Your task to perform on an android device: add a contact in the contacts app Image 0: 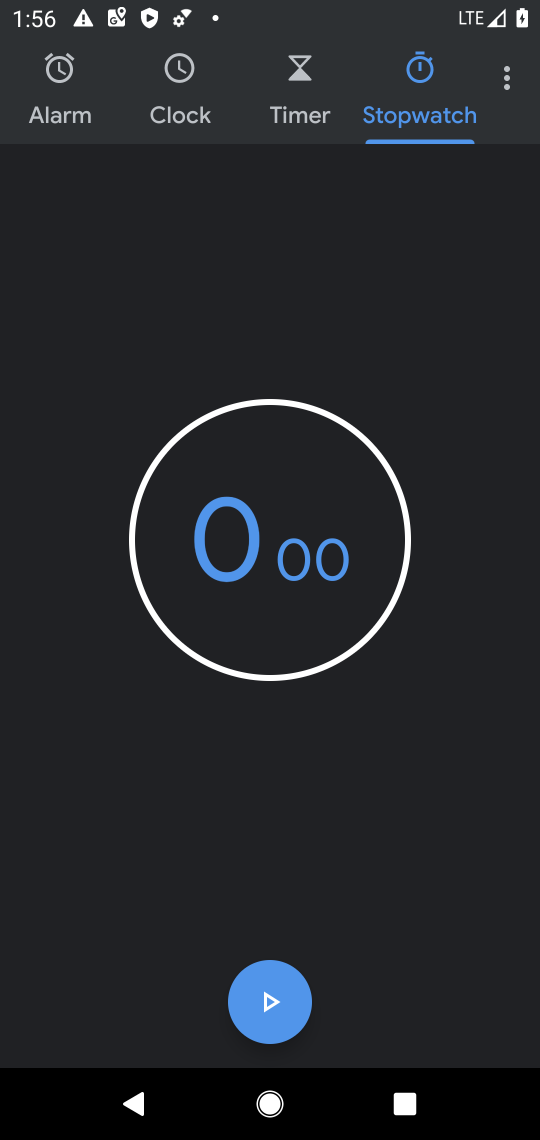
Step 0: press home button
Your task to perform on an android device: add a contact in the contacts app Image 1: 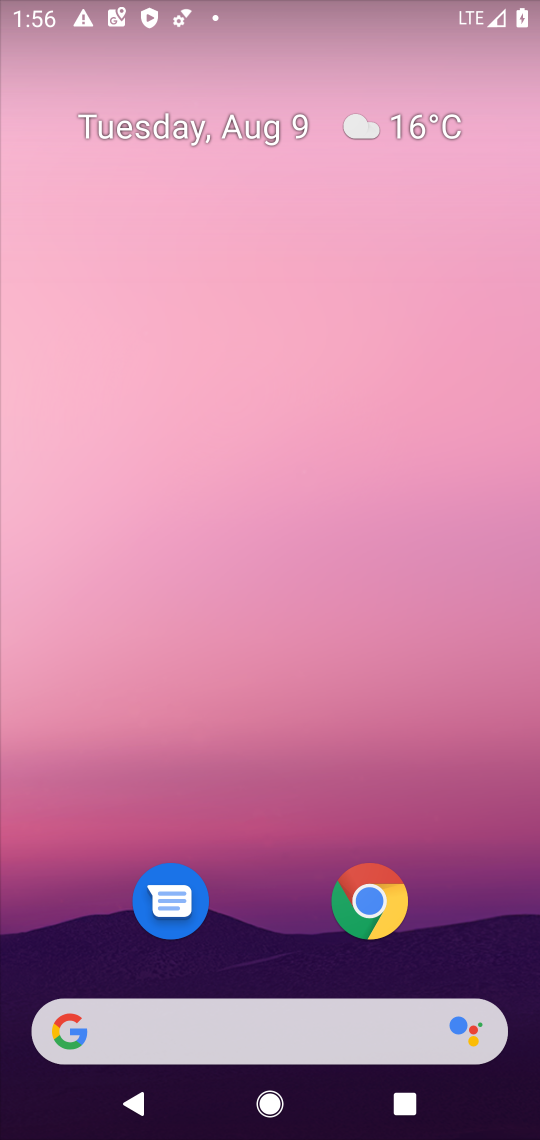
Step 1: drag from (515, 953) to (466, 144)
Your task to perform on an android device: add a contact in the contacts app Image 2: 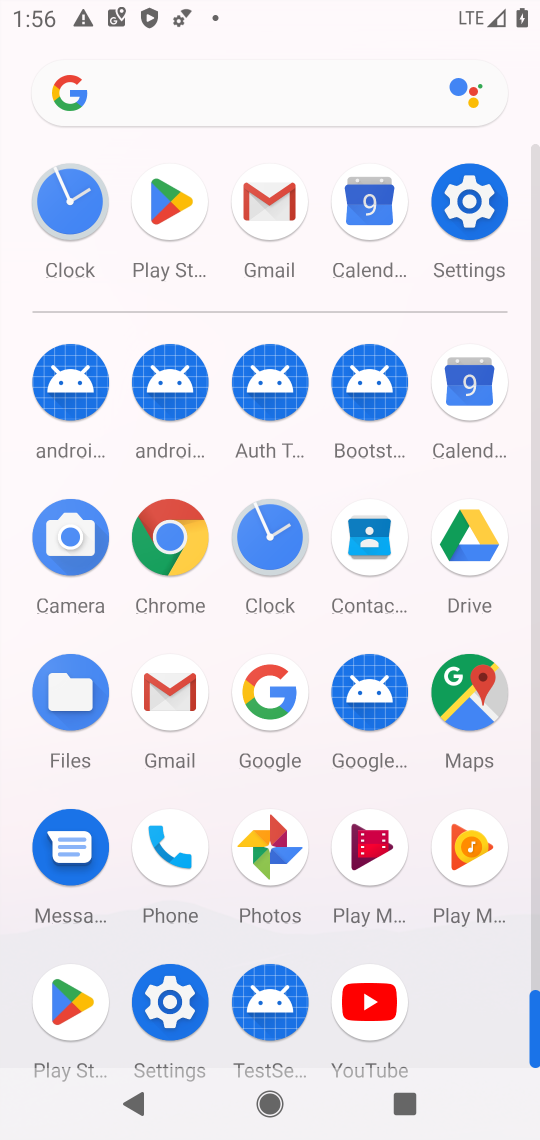
Step 2: click (360, 534)
Your task to perform on an android device: add a contact in the contacts app Image 3: 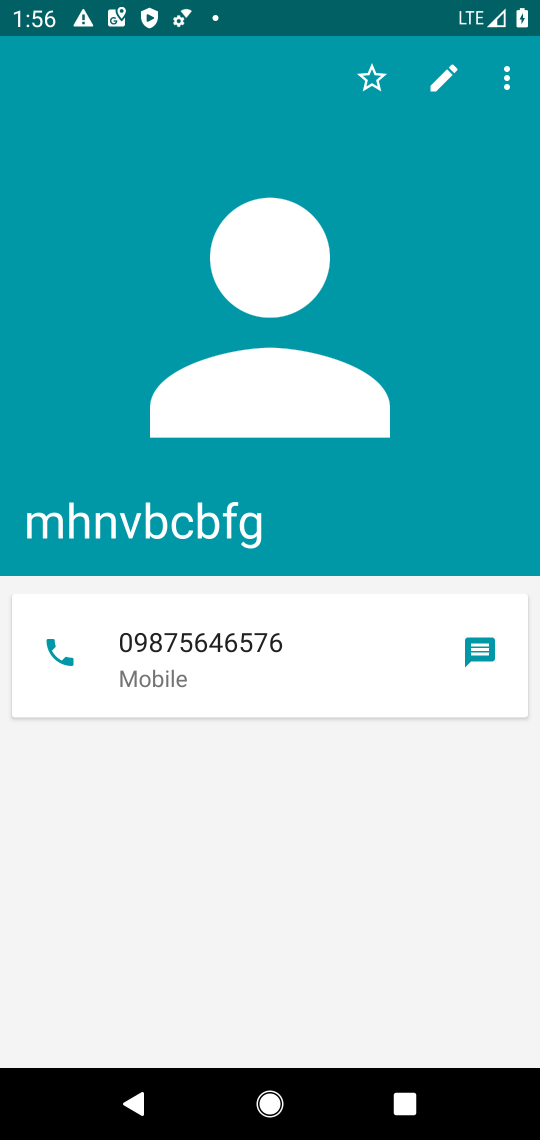
Step 3: press back button
Your task to perform on an android device: add a contact in the contacts app Image 4: 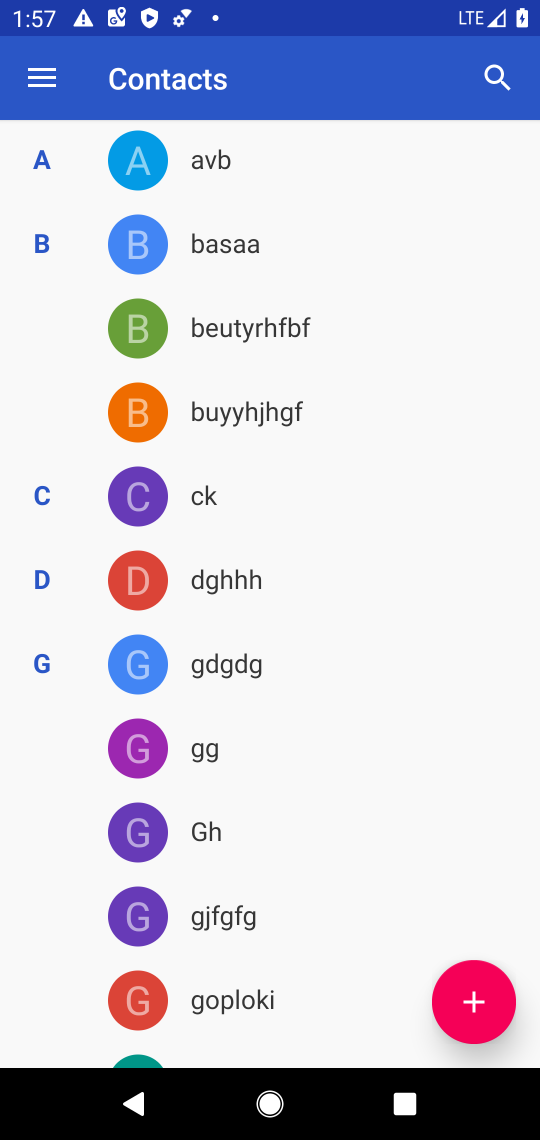
Step 4: click (484, 1008)
Your task to perform on an android device: add a contact in the contacts app Image 5: 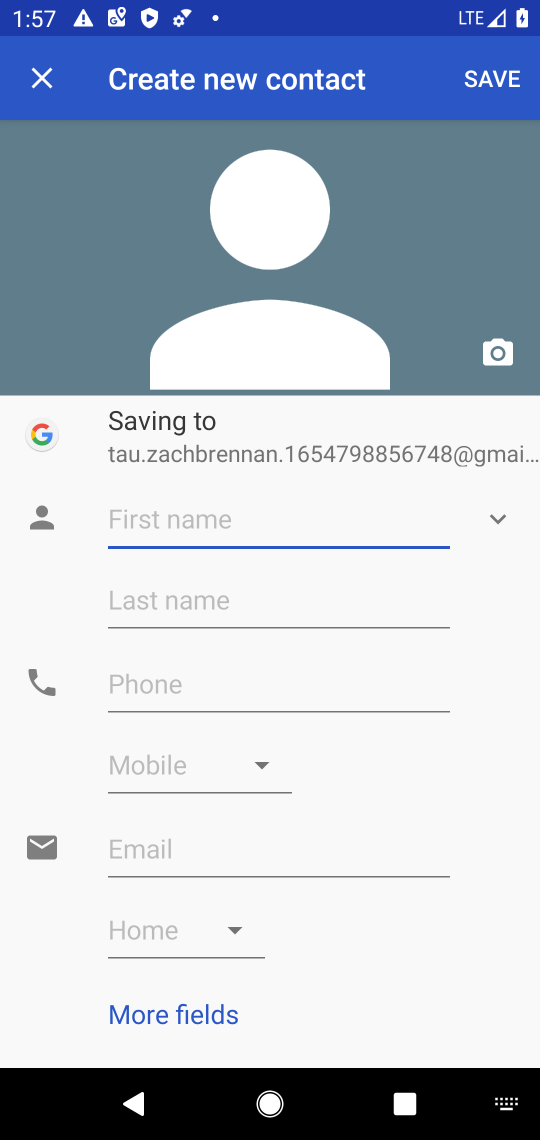
Step 5: type "mvgcdfbdfgf"
Your task to perform on an android device: add a contact in the contacts app Image 6: 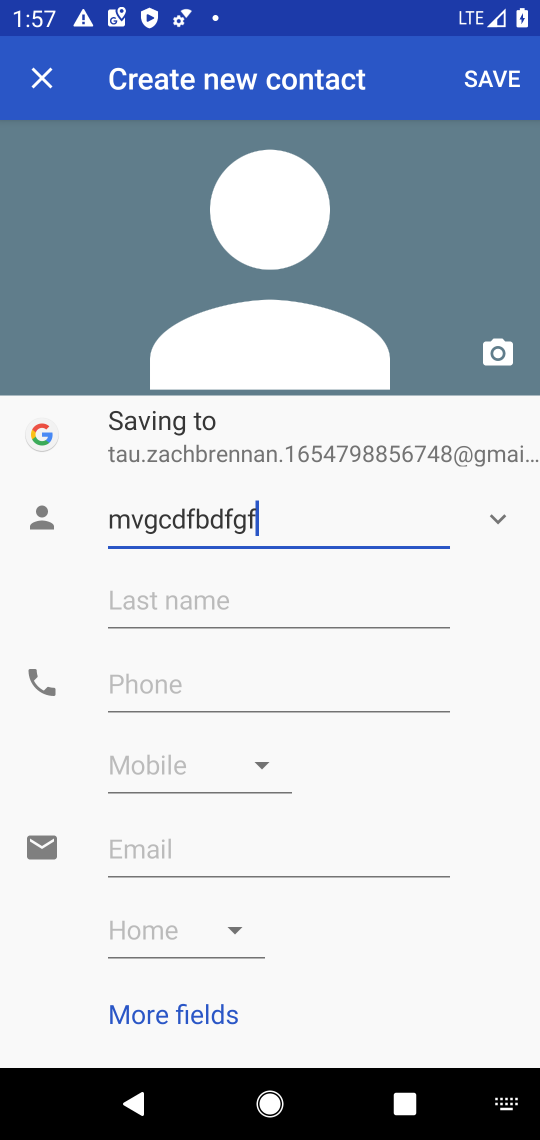
Step 6: click (192, 697)
Your task to perform on an android device: add a contact in the contacts app Image 7: 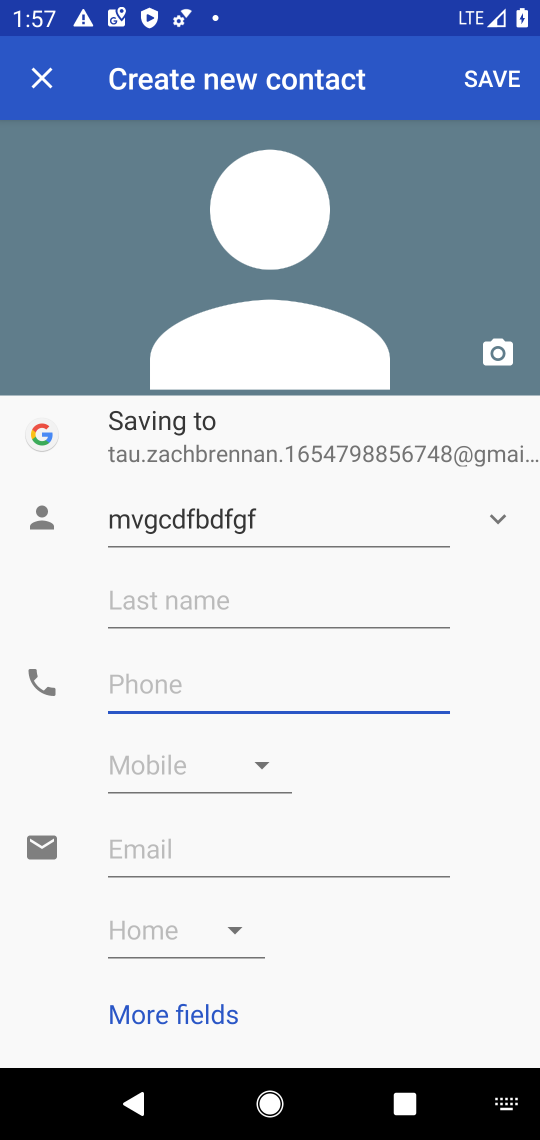
Step 7: type "9097675663"
Your task to perform on an android device: add a contact in the contacts app Image 8: 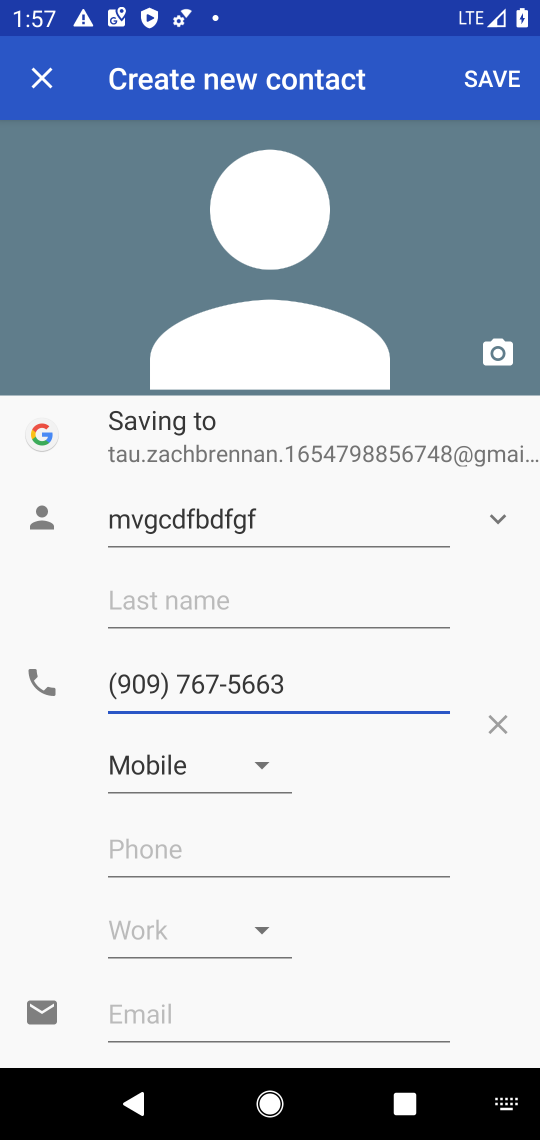
Step 8: click (485, 81)
Your task to perform on an android device: add a contact in the contacts app Image 9: 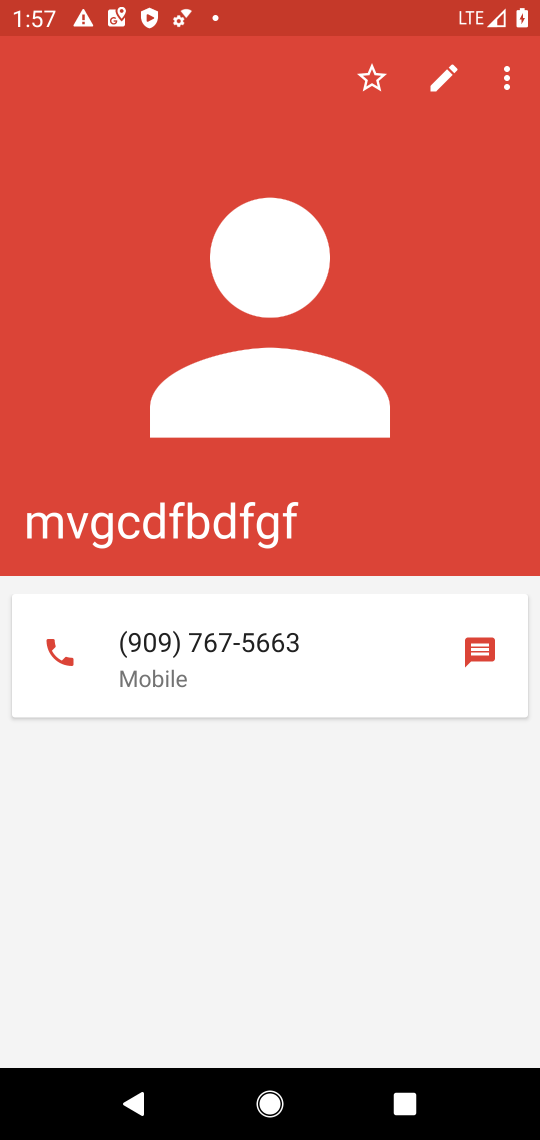
Step 9: task complete